Your task to perform on an android device: turn notification dots off Image 0: 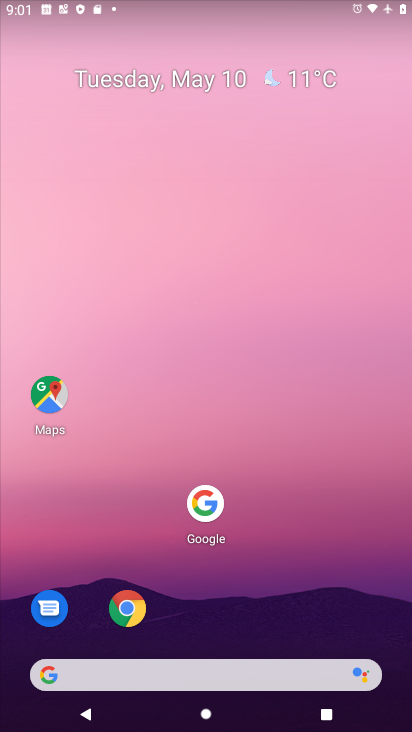
Step 0: drag from (224, 678) to (247, 103)
Your task to perform on an android device: turn notification dots off Image 1: 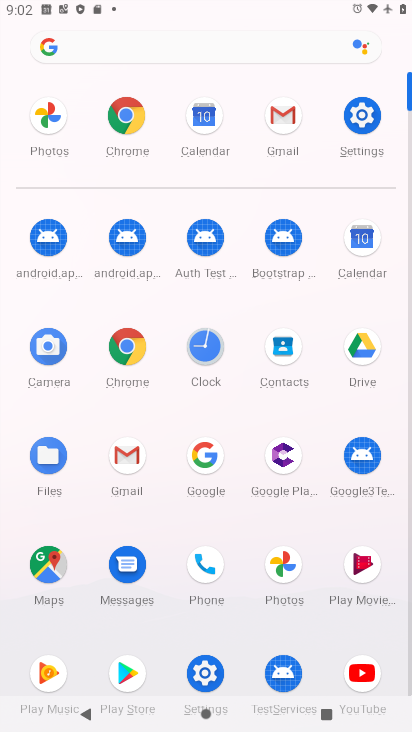
Step 1: click (380, 116)
Your task to perform on an android device: turn notification dots off Image 2: 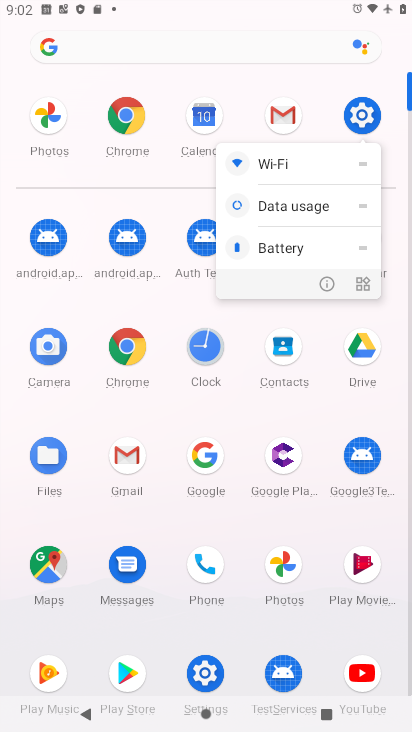
Step 2: click (366, 111)
Your task to perform on an android device: turn notification dots off Image 3: 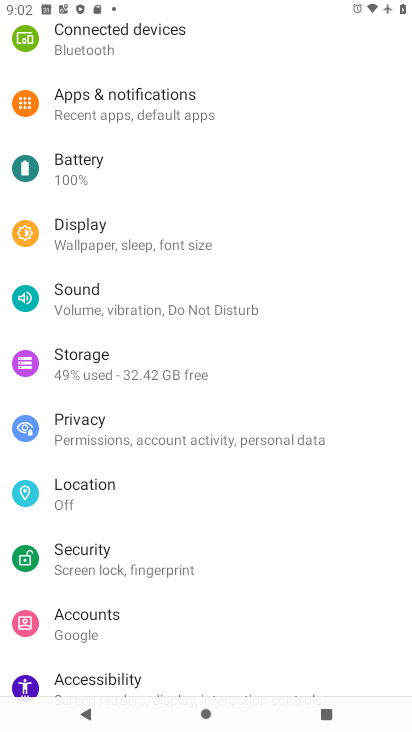
Step 3: click (171, 106)
Your task to perform on an android device: turn notification dots off Image 4: 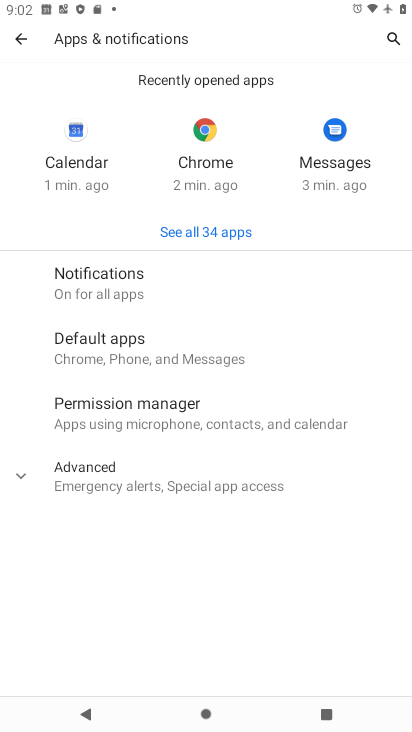
Step 4: click (134, 285)
Your task to perform on an android device: turn notification dots off Image 5: 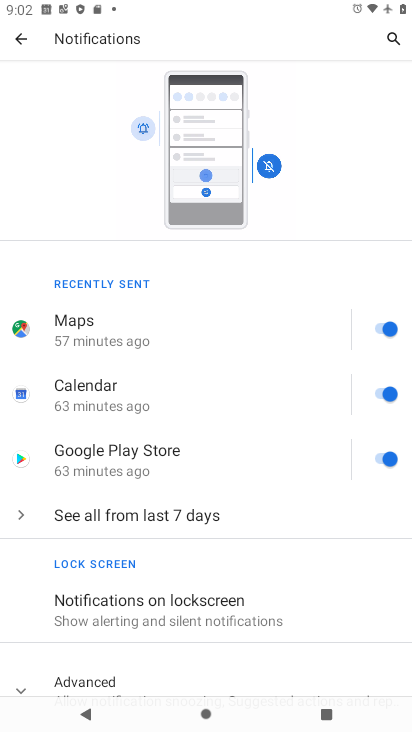
Step 5: click (92, 675)
Your task to perform on an android device: turn notification dots off Image 6: 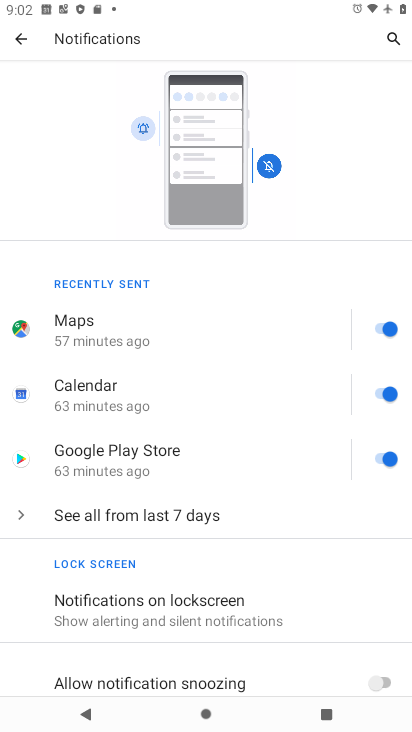
Step 6: task complete